Your task to perform on an android device: Go to Maps Image 0: 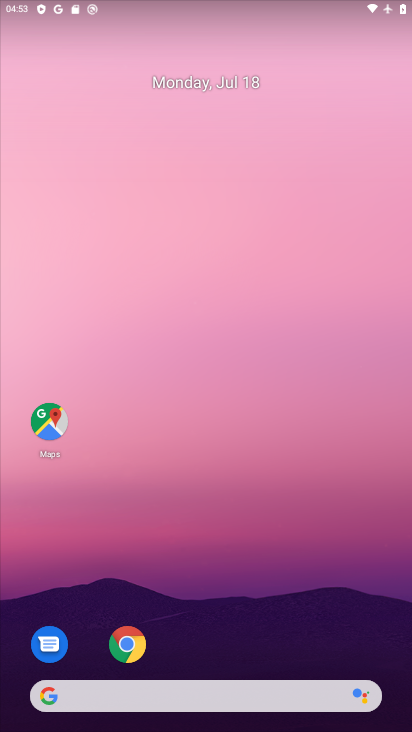
Step 0: press home button
Your task to perform on an android device: Go to Maps Image 1: 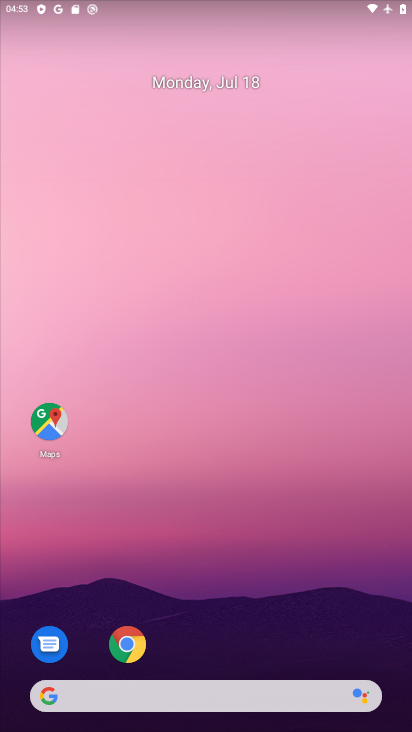
Step 1: drag from (317, 25) to (198, 59)
Your task to perform on an android device: Go to Maps Image 2: 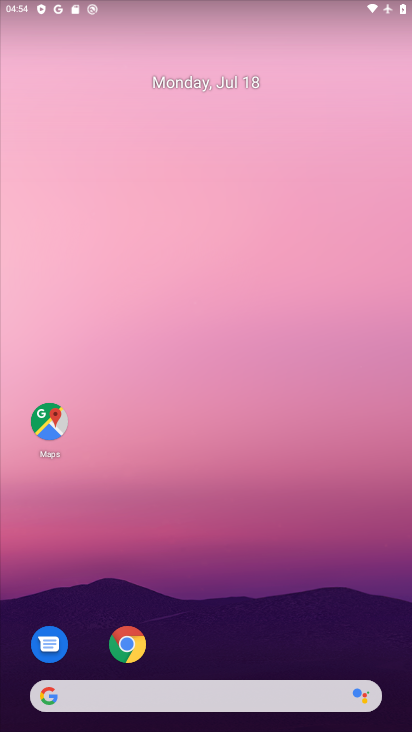
Step 2: drag from (221, 646) to (304, 1)
Your task to perform on an android device: Go to Maps Image 3: 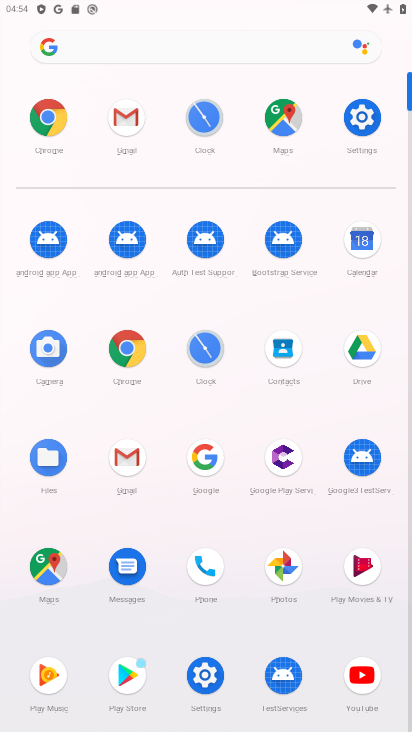
Step 3: click (44, 564)
Your task to perform on an android device: Go to Maps Image 4: 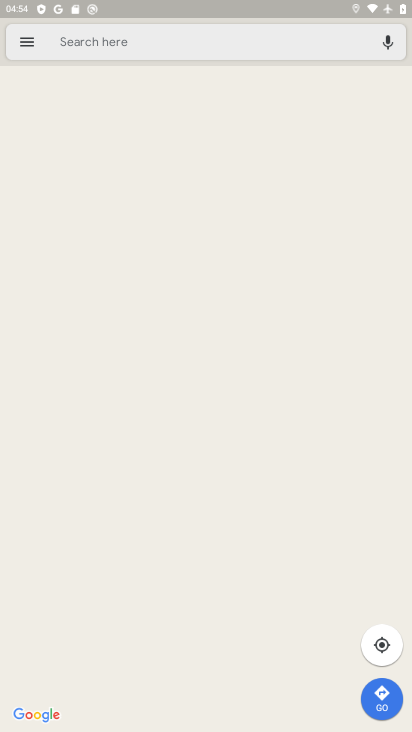
Step 4: task complete